Your task to perform on an android device: Go to Android settings Image 0: 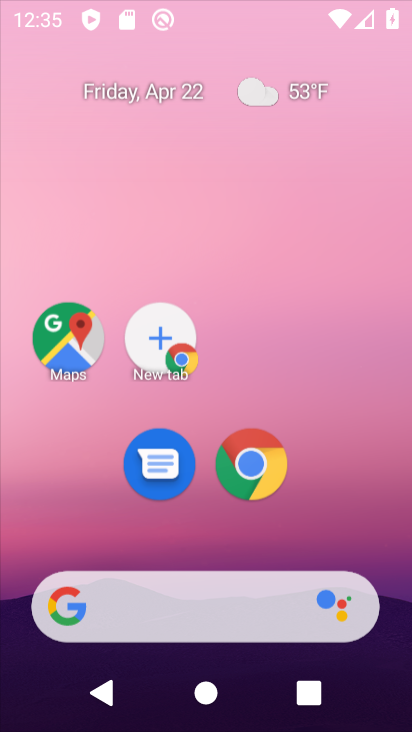
Step 0: click (287, 41)
Your task to perform on an android device: Go to Android settings Image 1: 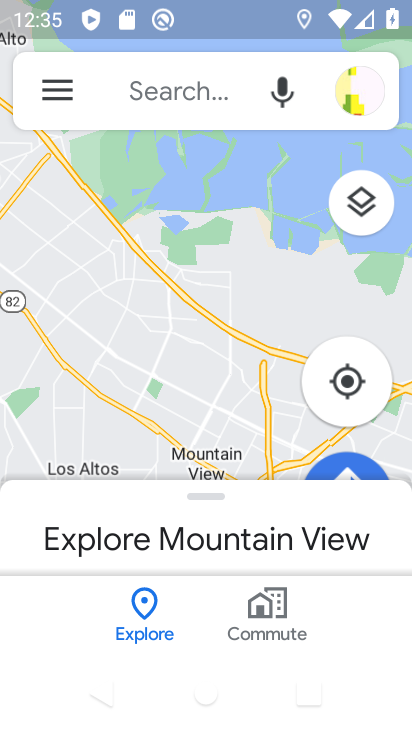
Step 1: press back button
Your task to perform on an android device: Go to Android settings Image 2: 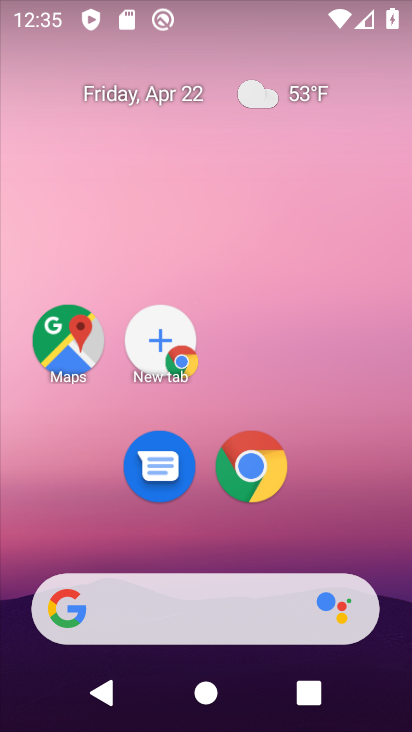
Step 2: drag from (348, 509) to (265, 5)
Your task to perform on an android device: Go to Android settings Image 3: 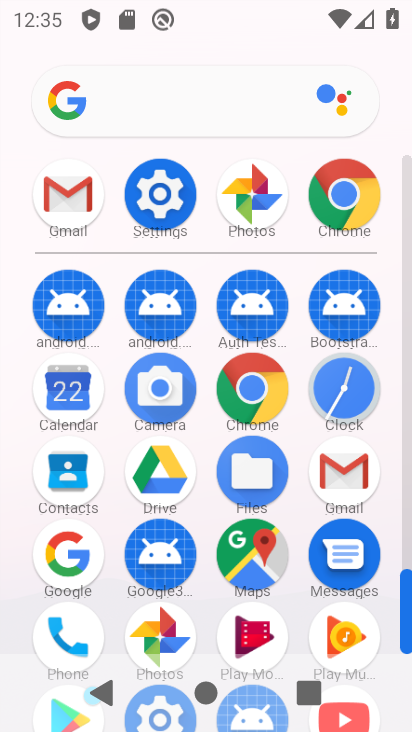
Step 3: click (160, 195)
Your task to perform on an android device: Go to Android settings Image 4: 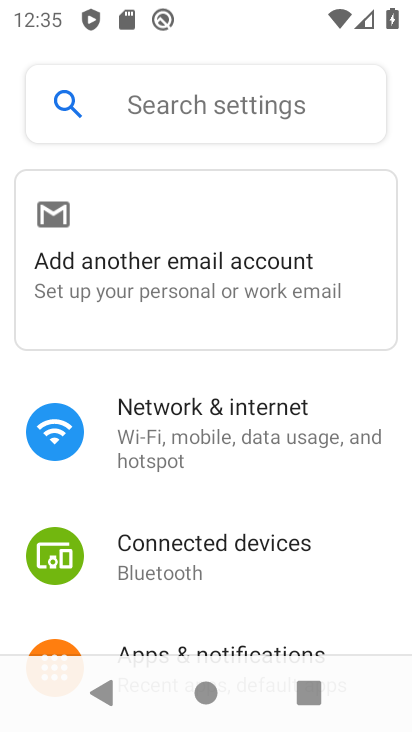
Step 4: task complete